Your task to perform on an android device: Turn off the flashlight Image 0: 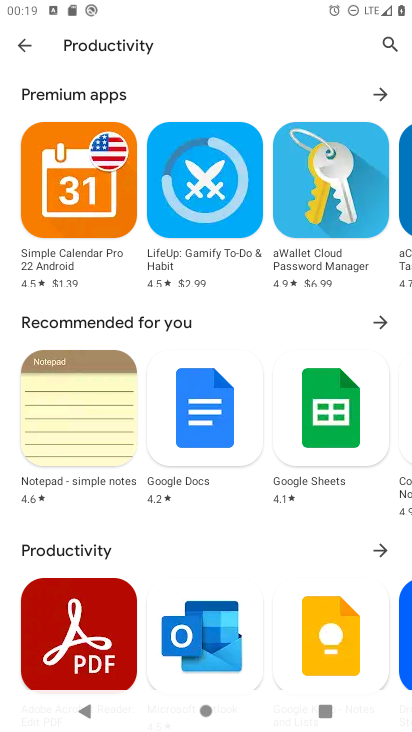
Step 0: press home button
Your task to perform on an android device: Turn off the flashlight Image 1: 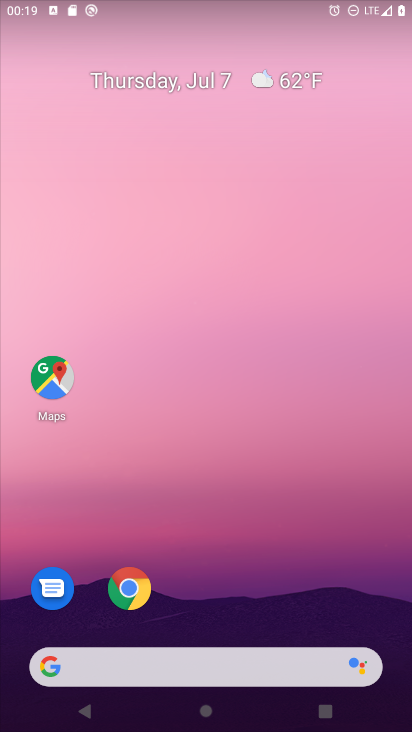
Step 1: drag from (238, 15) to (232, 557)
Your task to perform on an android device: Turn off the flashlight Image 2: 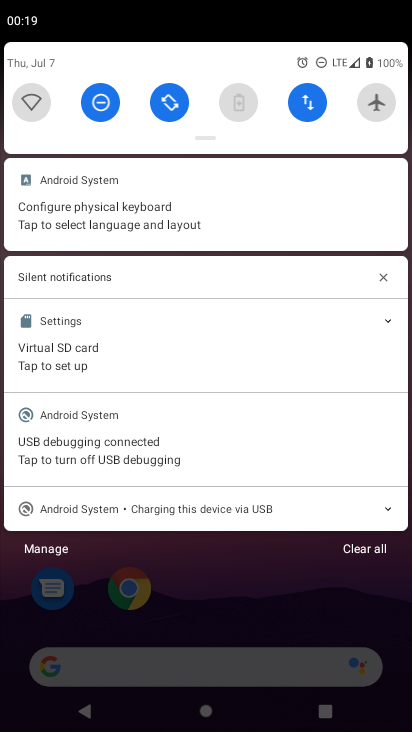
Step 2: drag from (198, 136) to (193, 495)
Your task to perform on an android device: Turn off the flashlight Image 3: 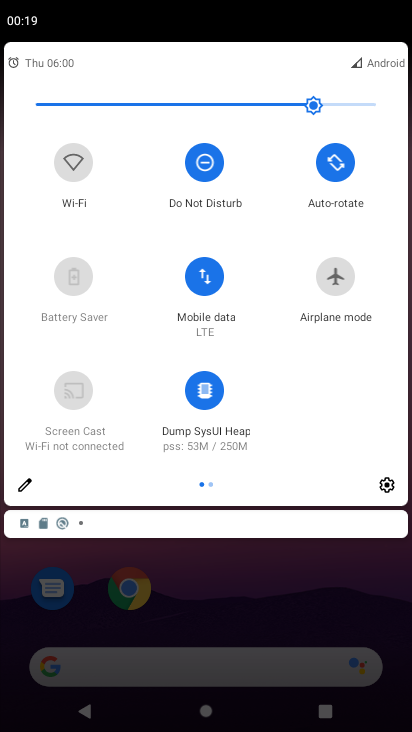
Step 3: click (22, 486)
Your task to perform on an android device: Turn off the flashlight Image 4: 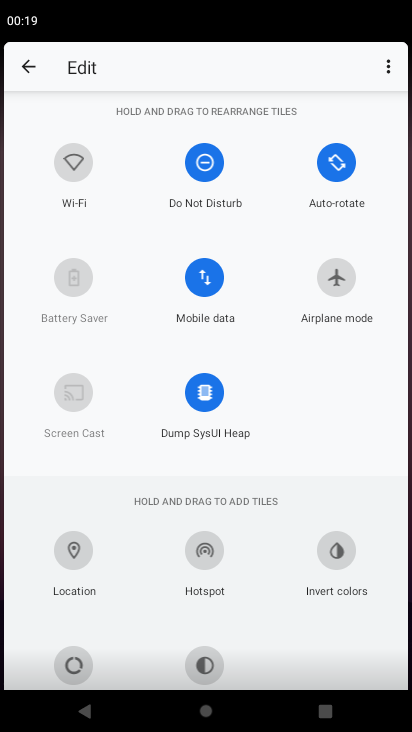
Step 4: task complete